Your task to perform on an android device: delete browsing data in the chrome app Image 0: 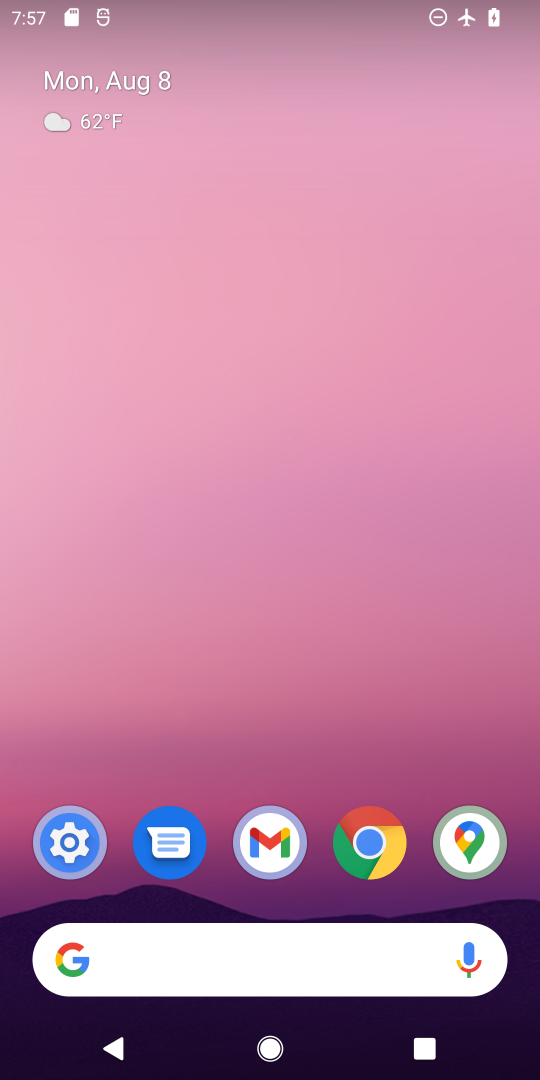
Step 0: click (383, 872)
Your task to perform on an android device: delete browsing data in the chrome app Image 1: 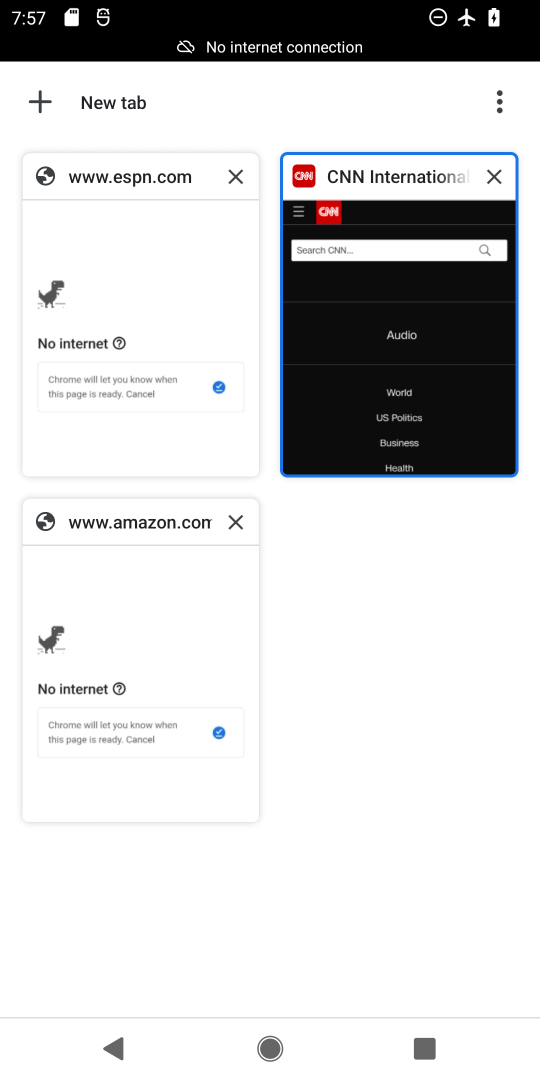
Step 1: click (500, 100)
Your task to perform on an android device: delete browsing data in the chrome app Image 2: 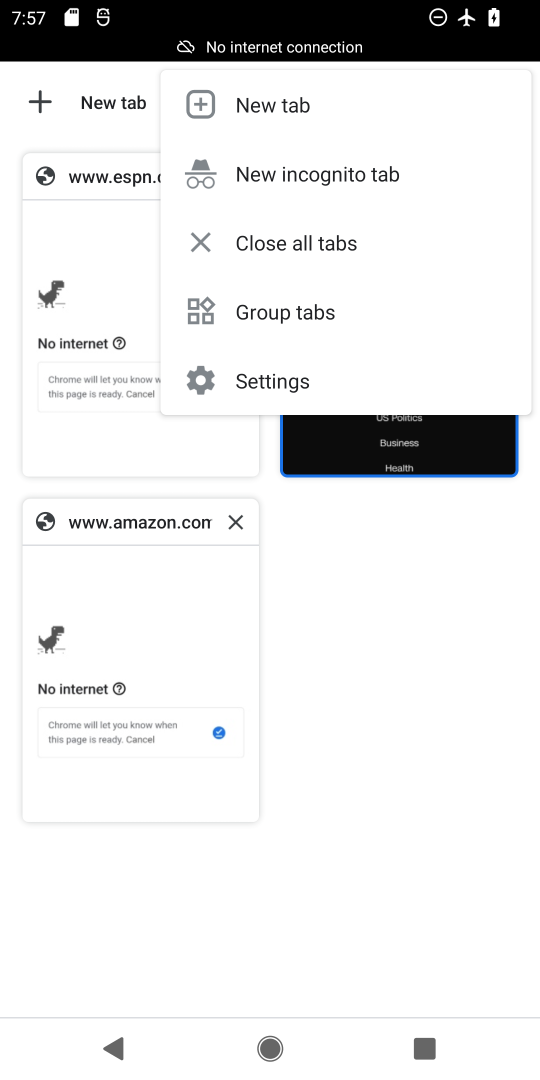
Step 2: click (326, 376)
Your task to perform on an android device: delete browsing data in the chrome app Image 3: 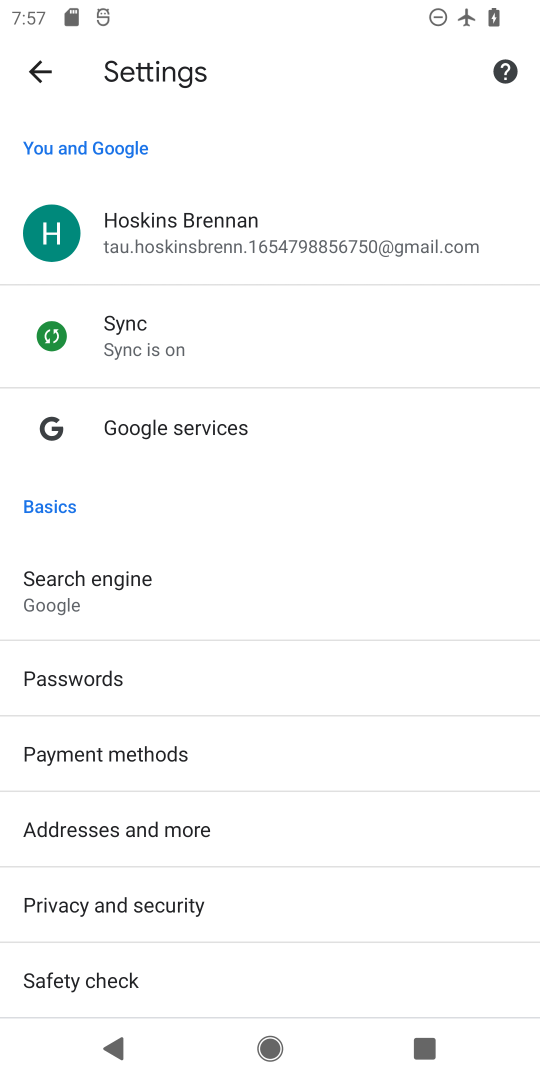
Step 3: drag from (182, 791) to (152, 247)
Your task to perform on an android device: delete browsing data in the chrome app Image 4: 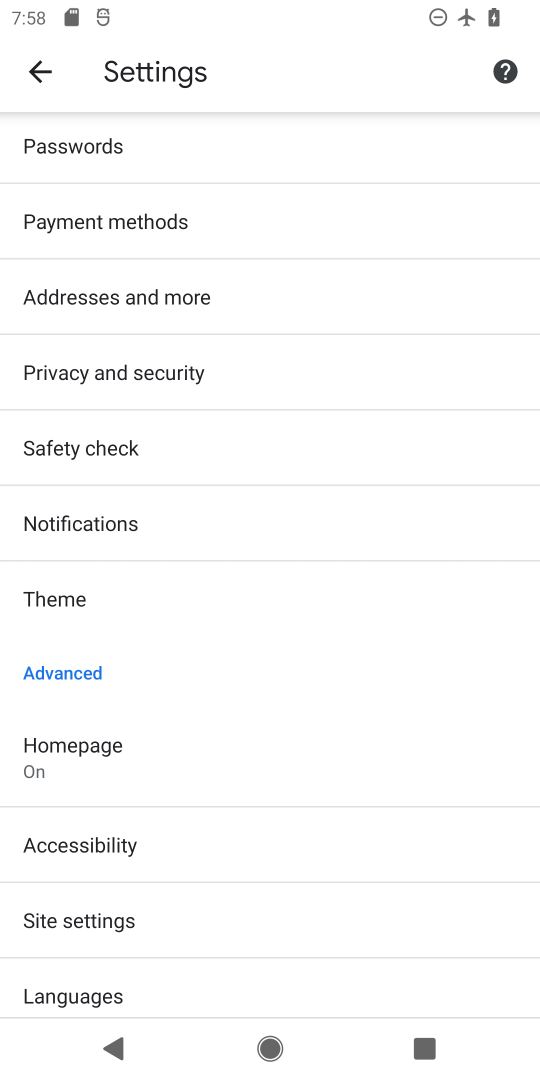
Step 4: drag from (236, 774) to (241, 373)
Your task to perform on an android device: delete browsing data in the chrome app Image 5: 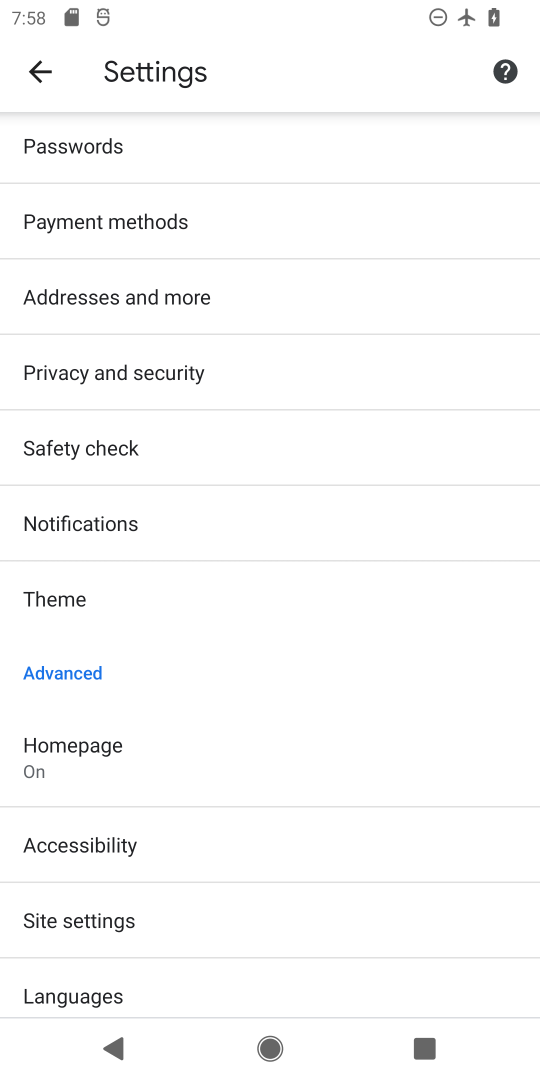
Step 5: drag from (234, 546) to (227, 1001)
Your task to perform on an android device: delete browsing data in the chrome app Image 6: 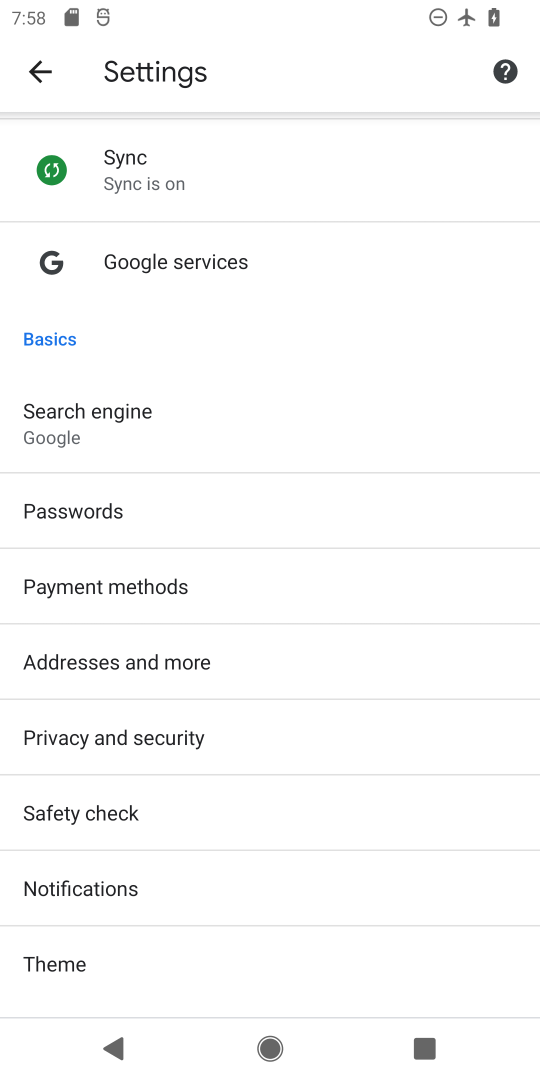
Step 6: drag from (230, 827) to (208, 371)
Your task to perform on an android device: delete browsing data in the chrome app Image 7: 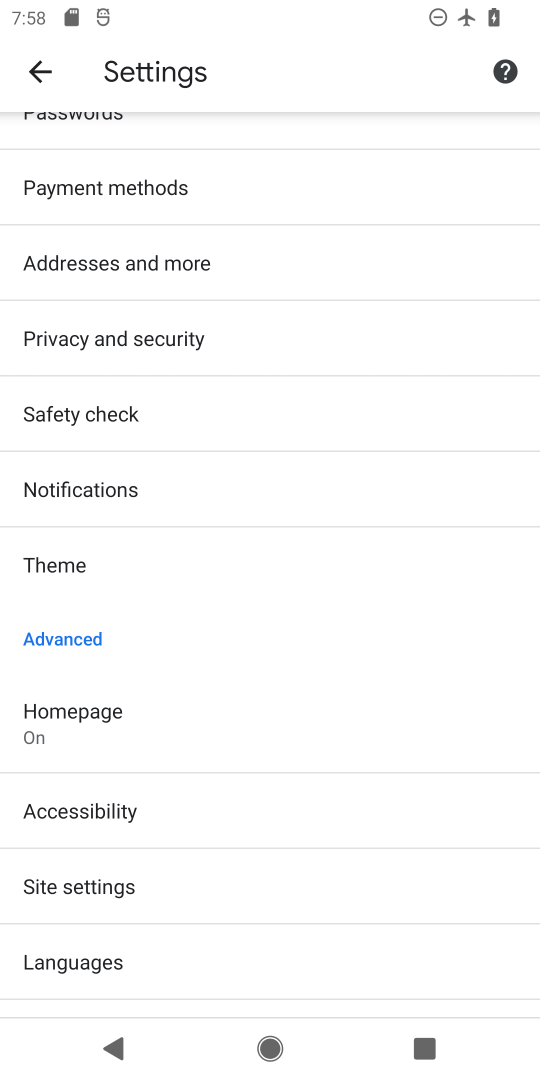
Step 7: drag from (123, 873) to (126, 376)
Your task to perform on an android device: delete browsing data in the chrome app Image 8: 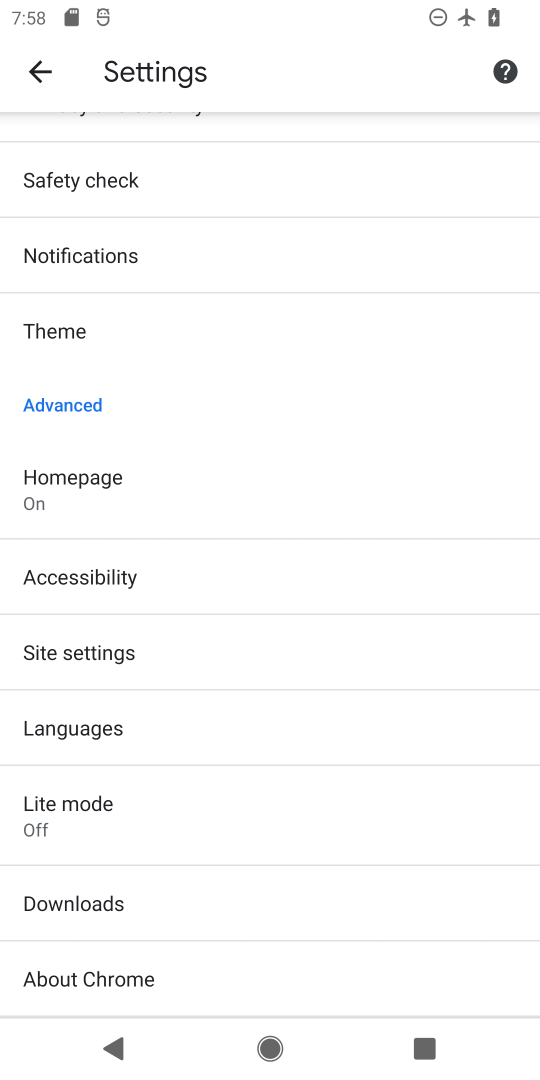
Step 8: drag from (71, 273) to (156, 776)
Your task to perform on an android device: delete browsing data in the chrome app Image 9: 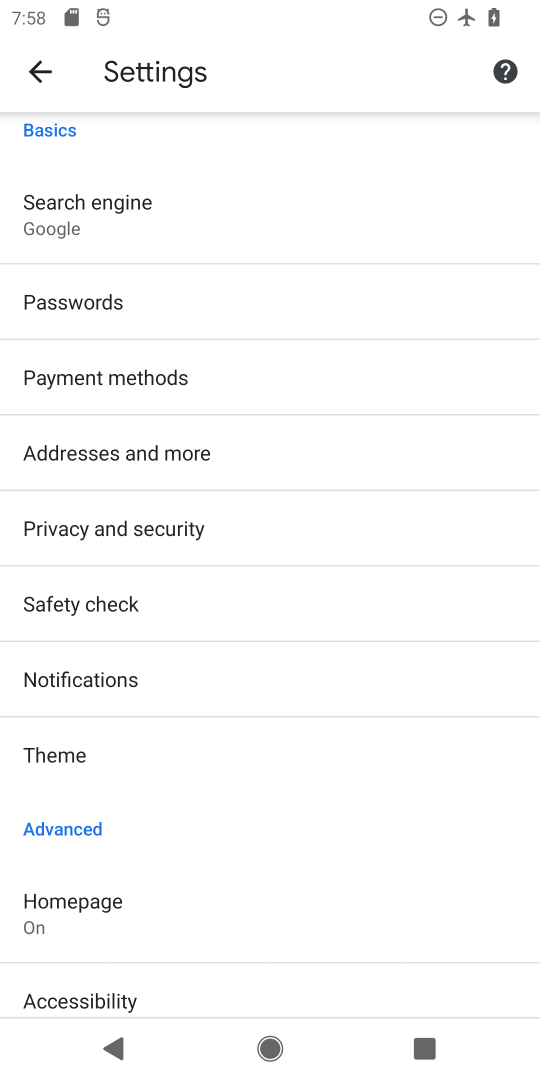
Step 9: click (111, 512)
Your task to perform on an android device: delete browsing data in the chrome app Image 10: 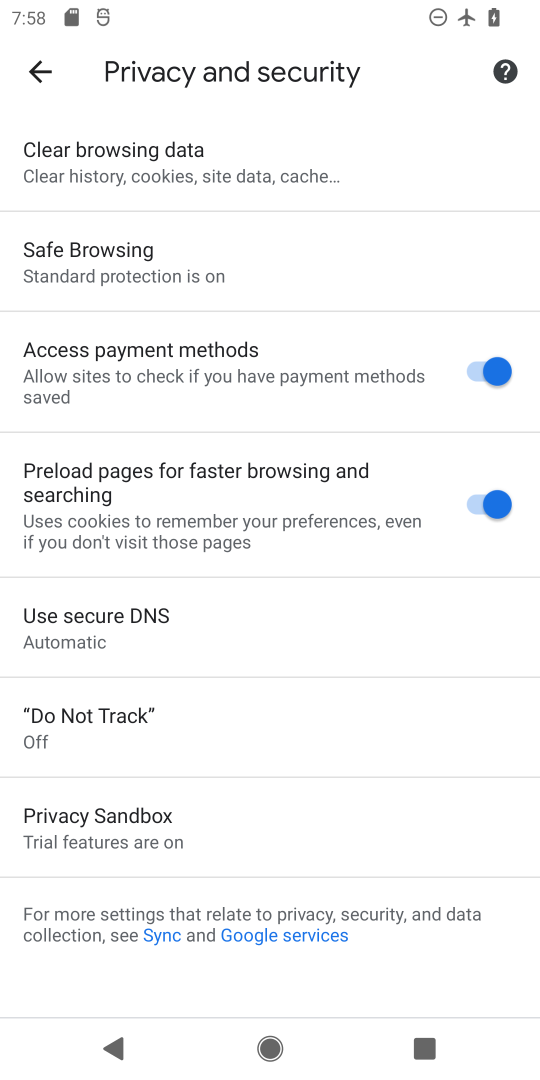
Step 10: click (124, 173)
Your task to perform on an android device: delete browsing data in the chrome app Image 11: 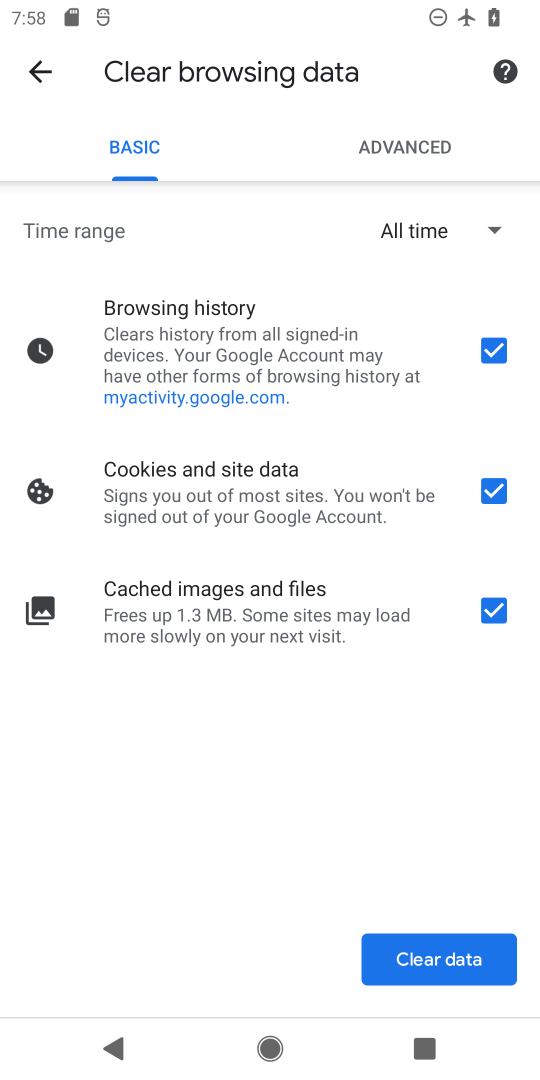
Step 11: click (475, 959)
Your task to perform on an android device: delete browsing data in the chrome app Image 12: 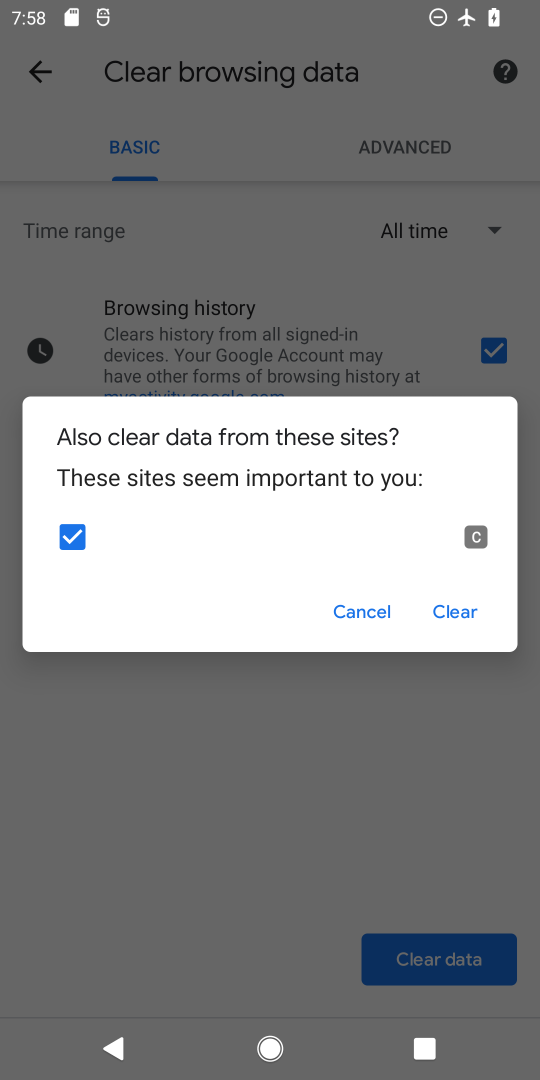
Step 12: click (439, 609)
Your task to perform on an android device: delete browsing data in the chrome app Image 13: 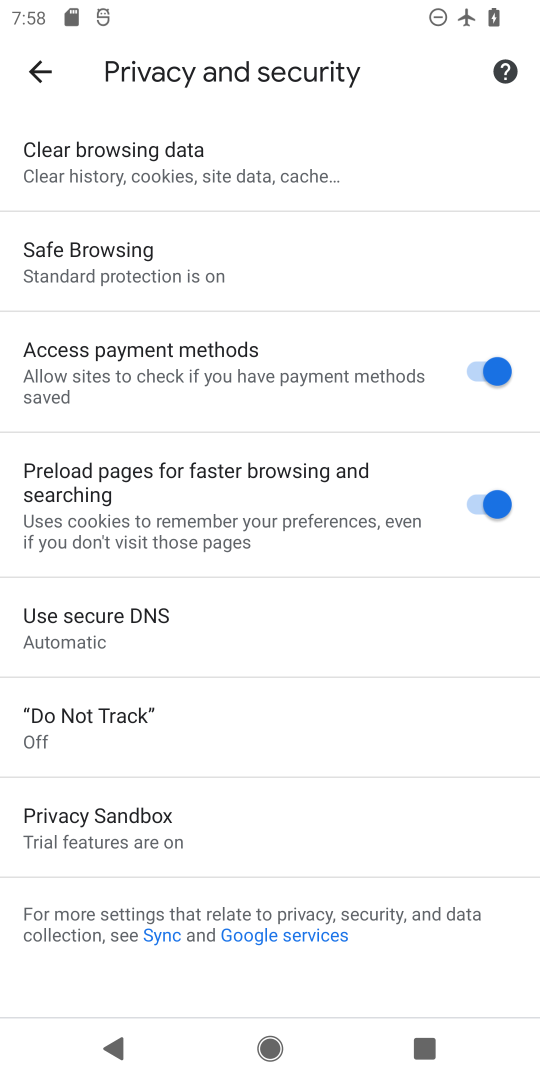
Step 13: task complete